Your task to perform on an android device: Open Google Maps Image 0: 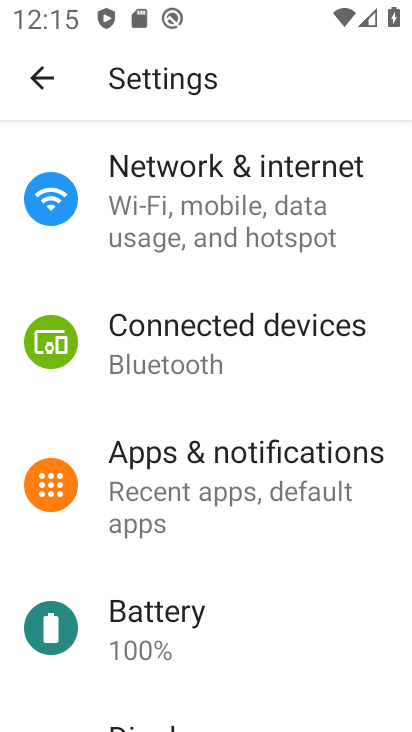
Step 0: press back button
Your task to perform on an android device: Open Google Maps Image 1: 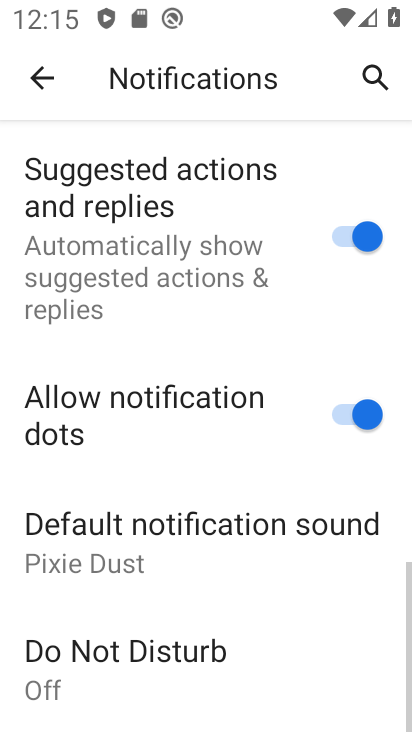
Step 1: press back button
Your task to perform on an android device: Open Google Maps Image 2: 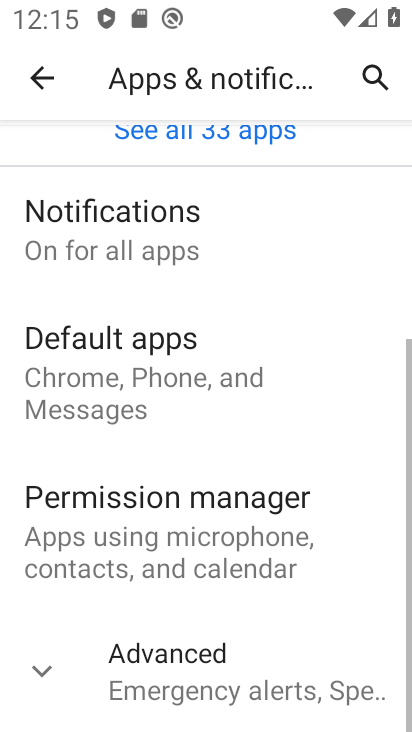
Step 2: press home button
Your task to perform on an android device: Open Google Maps Image 3: 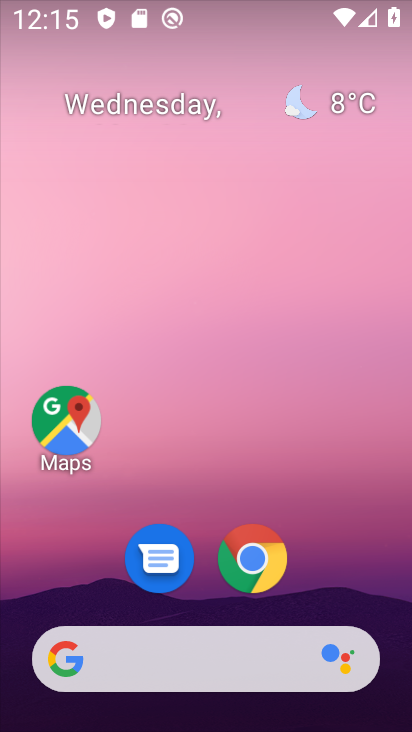
Step 3: click (56, 414)
Your task to perform on an android device: Open Google Maps Image 4: 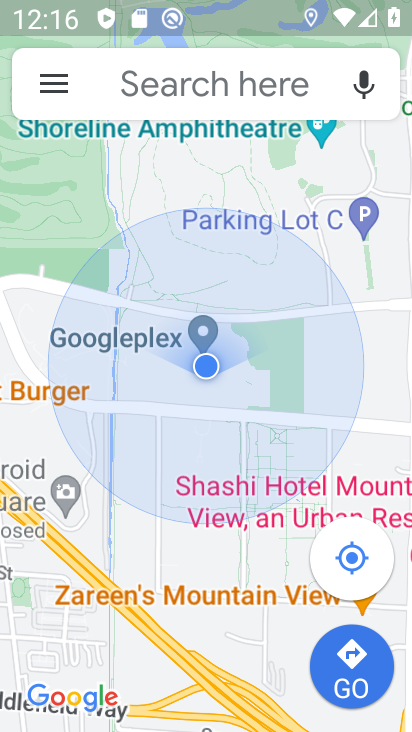
Step 4: task complete